Your task to perform on an android device: delete location history Image 0: 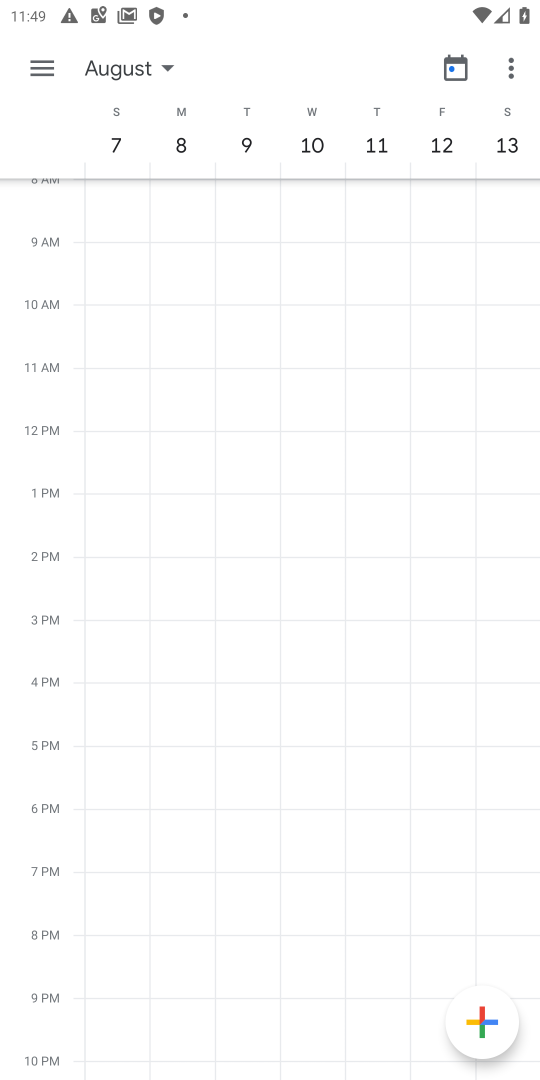
Step 0: press back button
Your task to perform on an android device: delete location history Image 1: 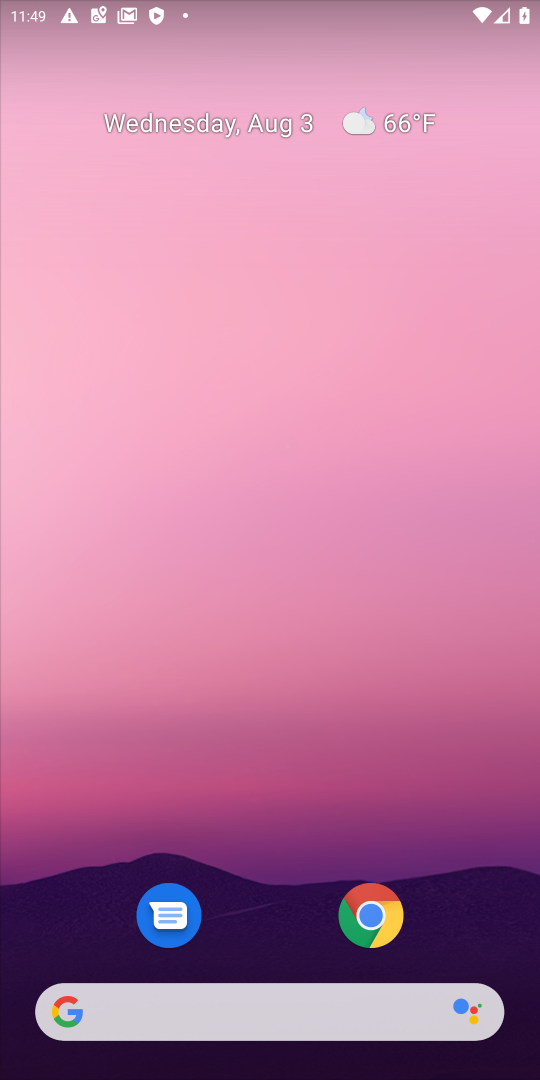
Step 1: click (375, 924)
Your task to perform on an android device: delete location history Image 2: 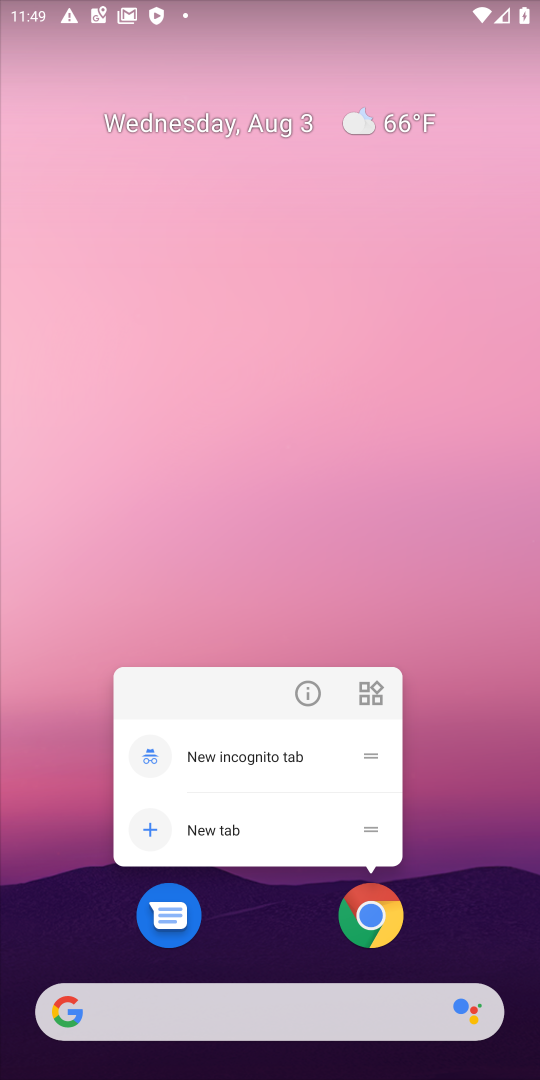
Step 2: click (240, 949)
Your task to perform on an android device: delete location history Image 3: 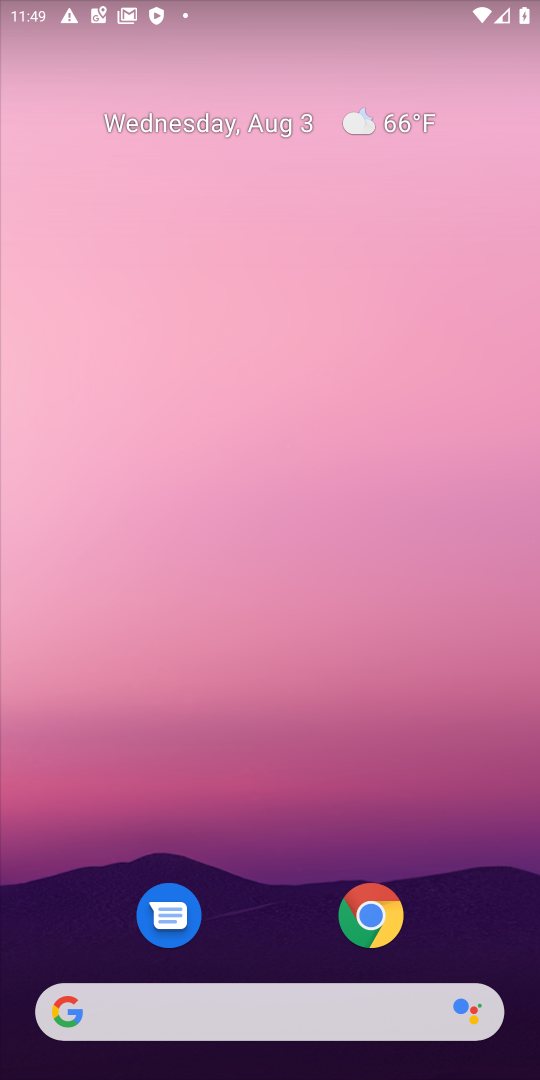
Step 3: drag from (240, 949) to (290, 79)
Your task to perform on an android device: delete location history Image 4: 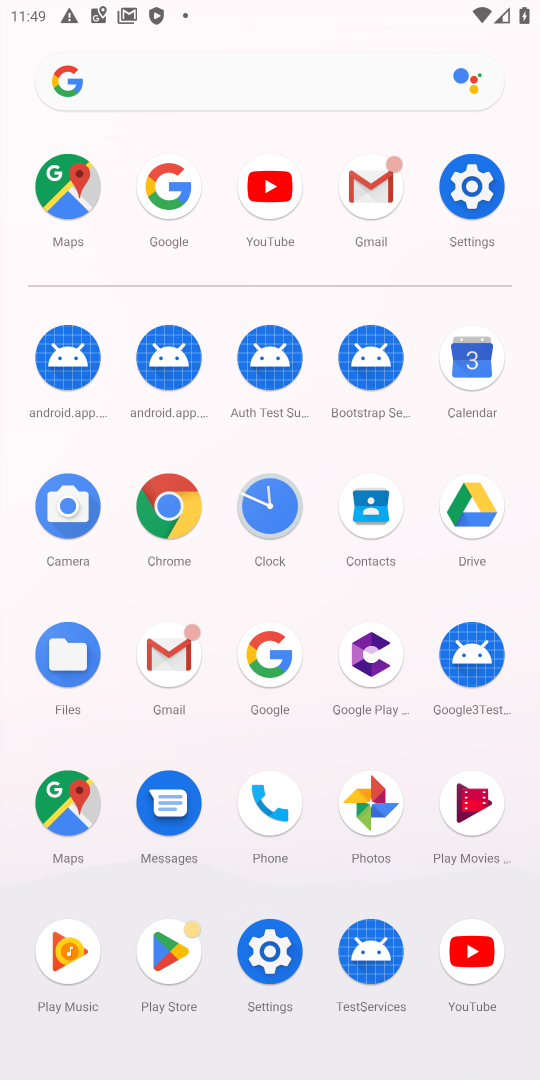
Step 4: click (468, 183)
Your task to perform on an android device: delete location history Image 5: 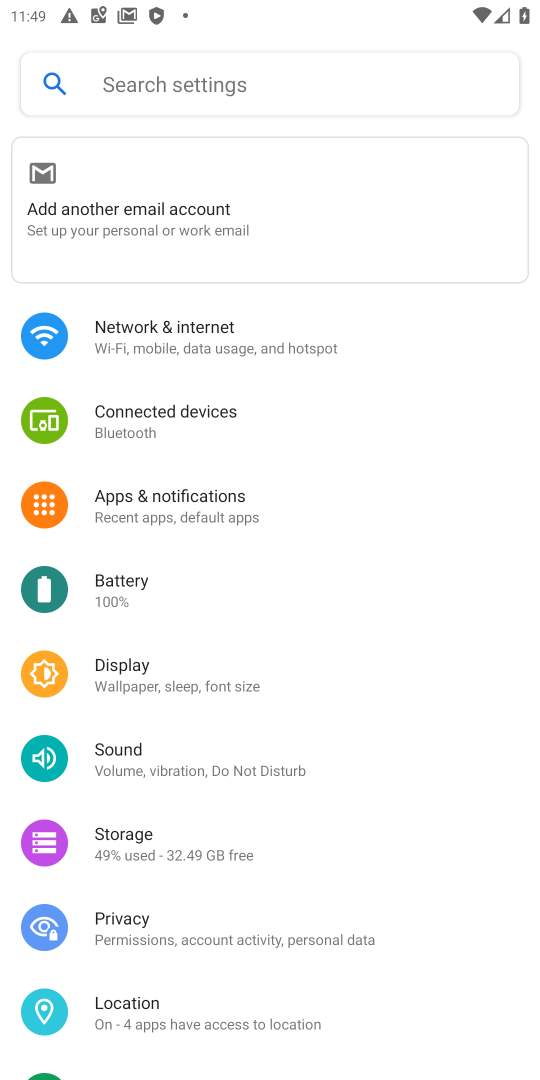
Step 5: click (126, 1011)
Your task to perform on an android device: delete location history Image 6: 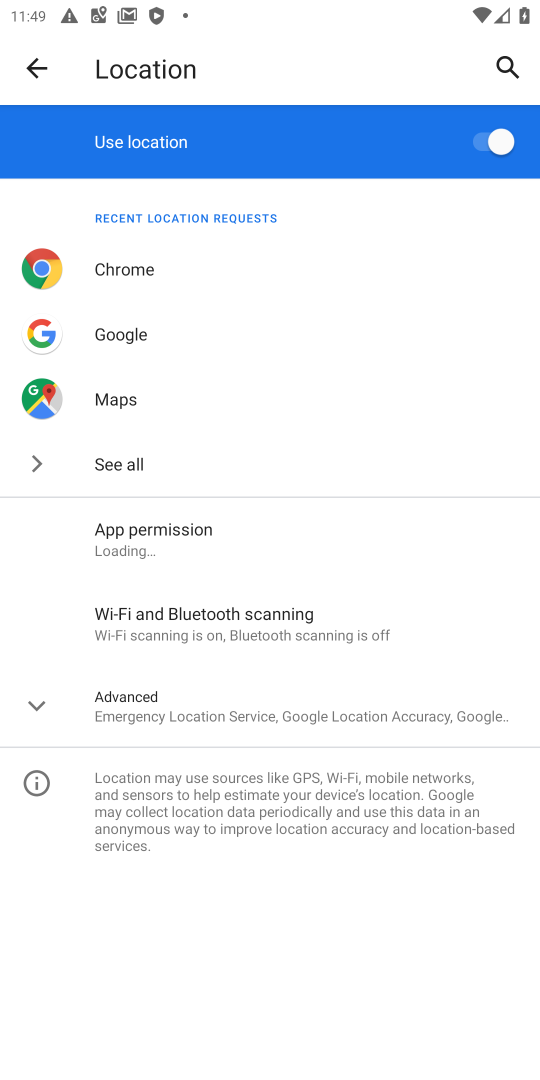
Step 6: click (118, 706)
Your task to perform on an android device: delete location history Image 7: 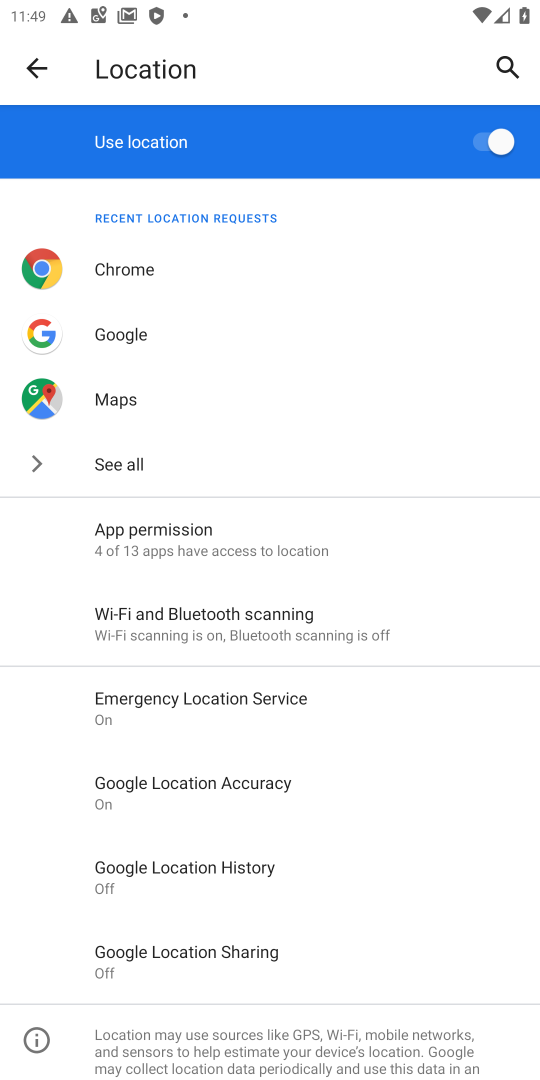
Step 7: click (162, 873)
Your task to perform on an android device: delete location history Image 8: 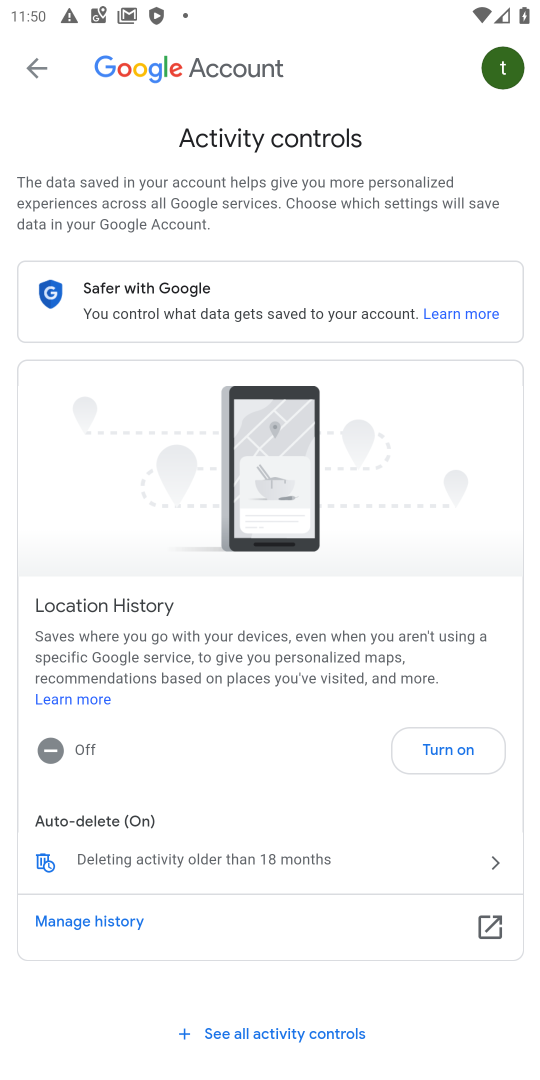
Step 8: click (123, 928)
Your task to perform on an android device: delete location history Image 9: 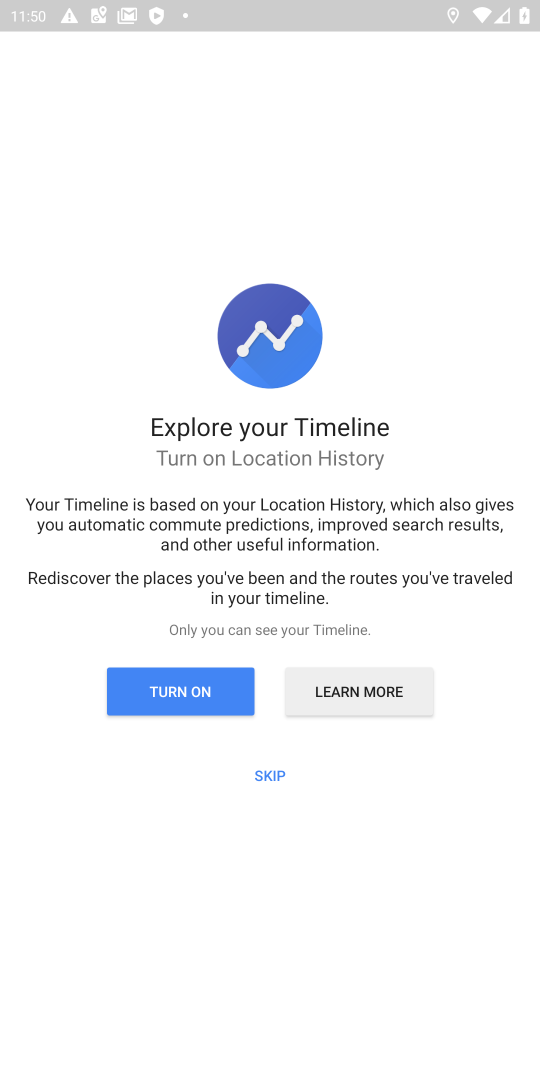
Step 9: click (200, 688)
Your task to perform on an android device: delete location history Image 10: 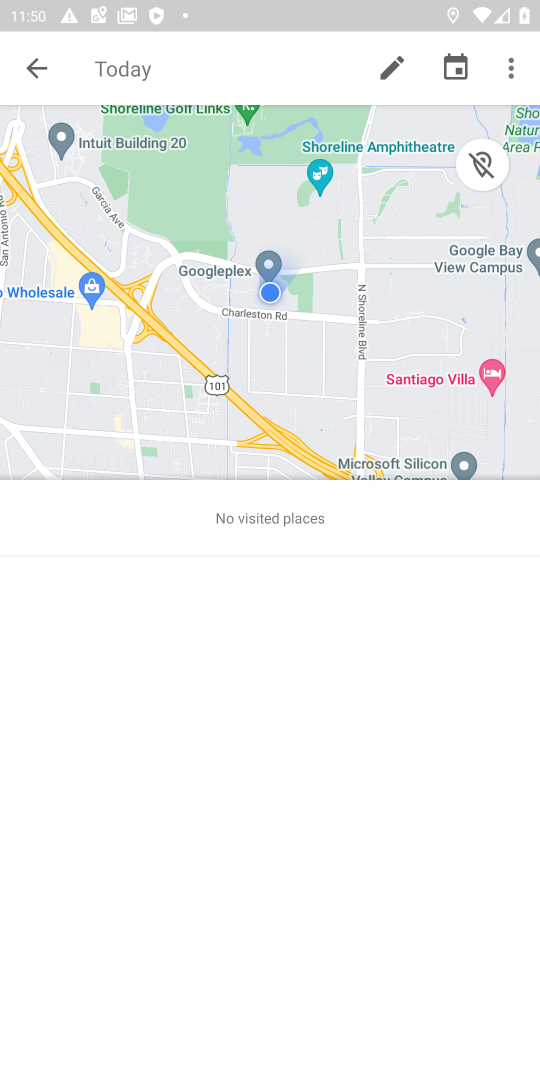
Step 10: click (510, 69)
Your task to perform on an android device: delete location history Image 11: 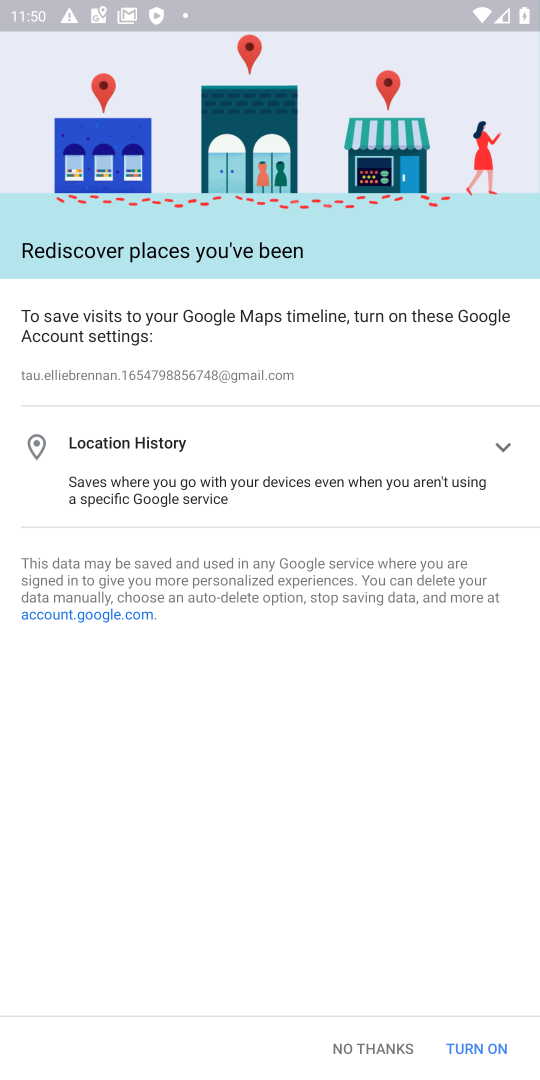
Step 11: click (388, 1036)
Your task to perform on an android device: delete location history Image 12: 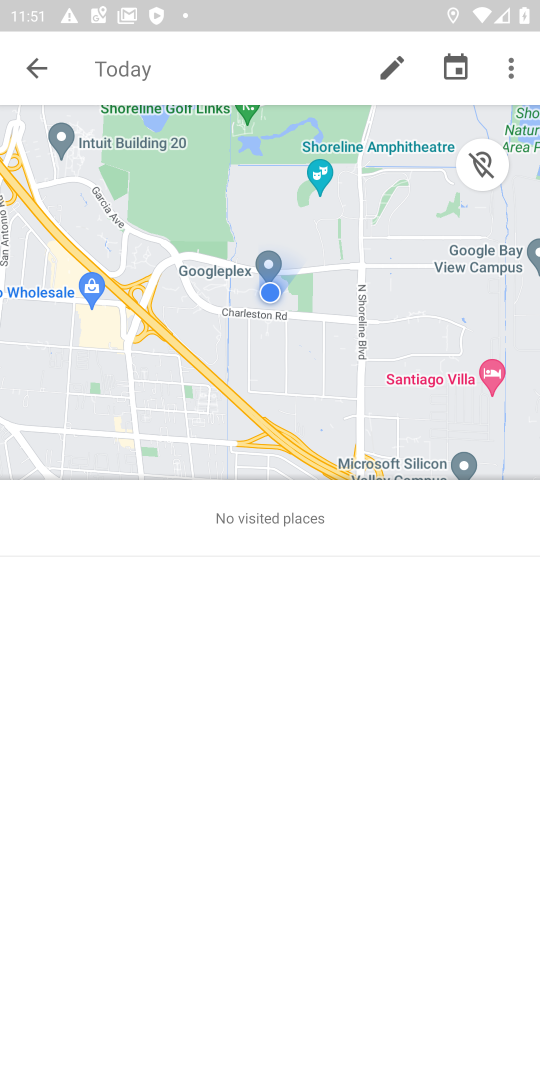
Step 12: click (519, 75)
Your task to perform on an android device: delete location history Image 13: 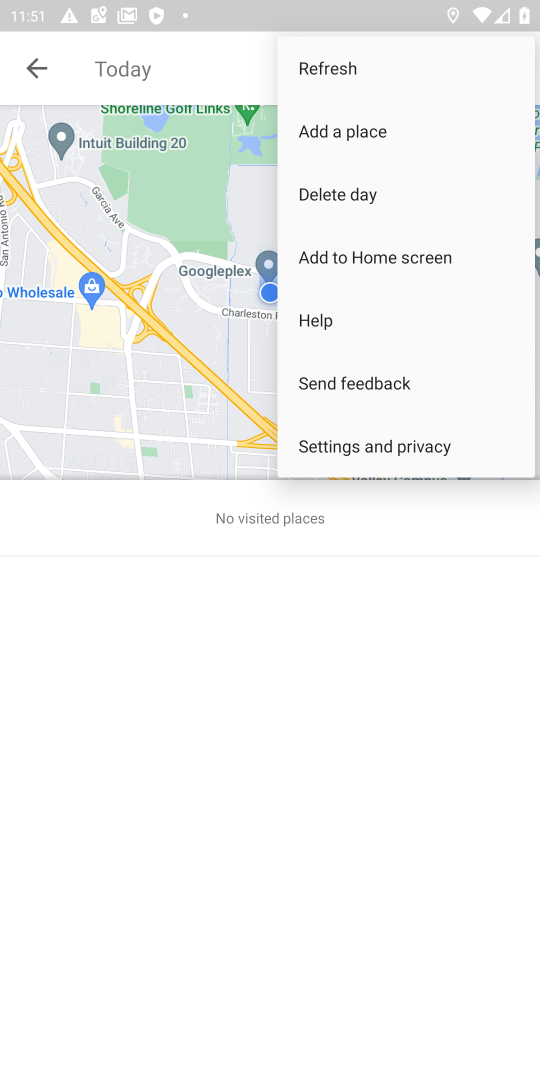
Step 13: click (366, 450)
Your task to perform on an android device: delete location history Image 14: 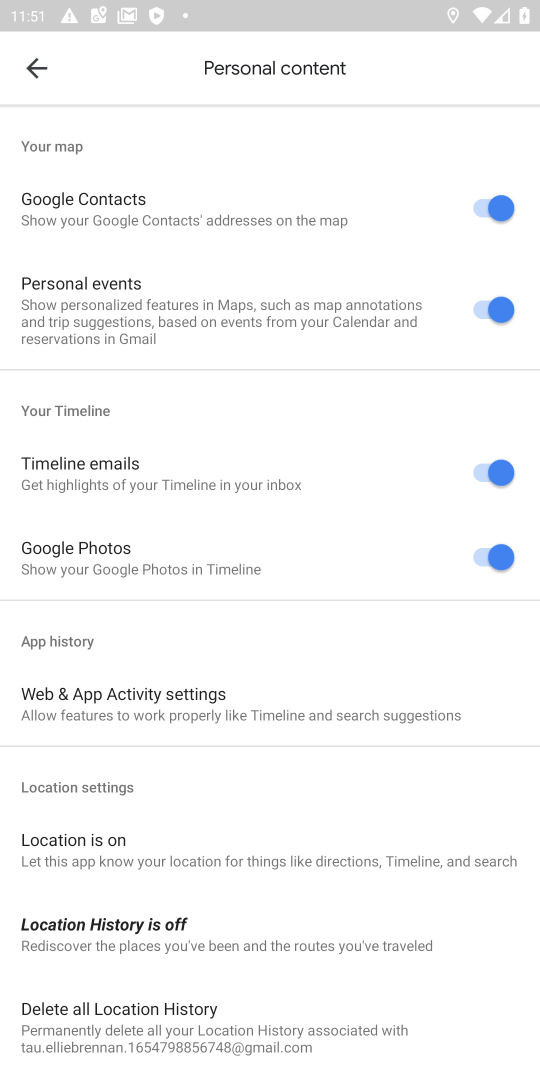
Step 14: click (137, 1040)
Your task to perform on an android device: delete location history Image 15: 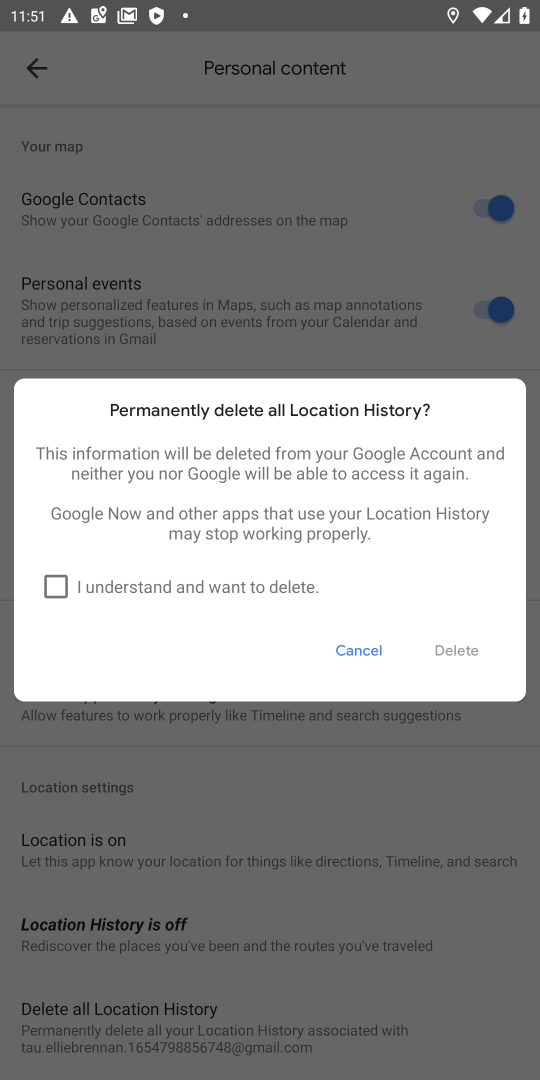
Step 15: click (60, 593)
Your task to perform on an android device: delete location history Image 16: 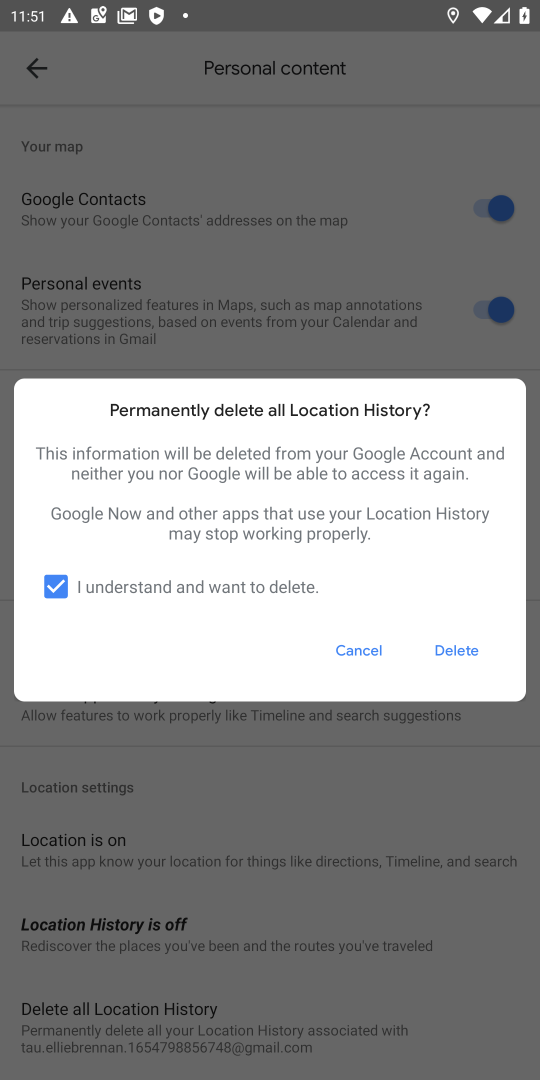
Step 16: click (461, 654)
Your task to perform on an android device: delete location history Image 17: 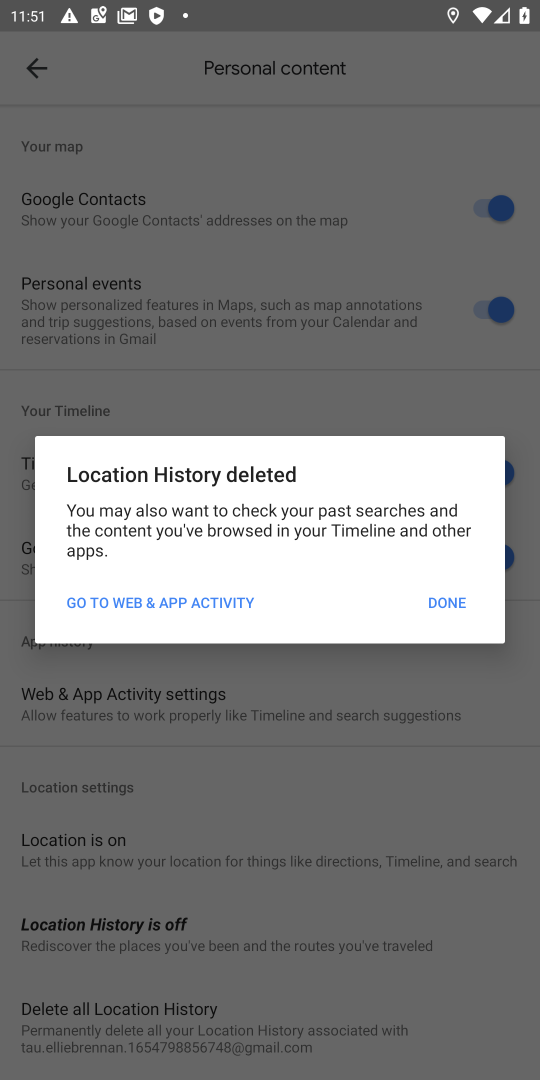
Step 17: click (450, 607)
Your task to perform on an android device: delete location history Image 18: 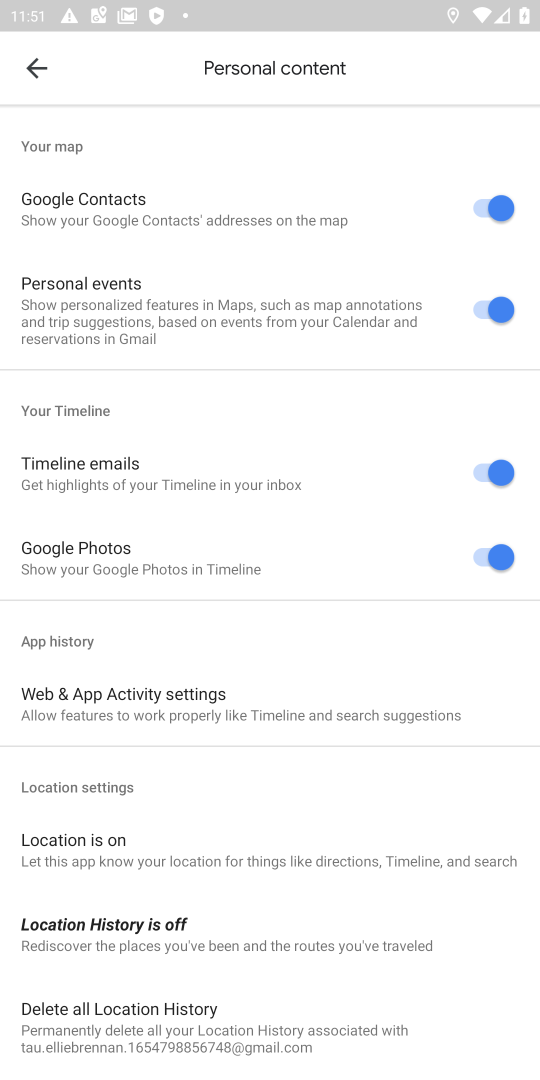
Step 18: task complete